Your task to perform on an android device: Search for Mexican restaurants on Maps Image 0: 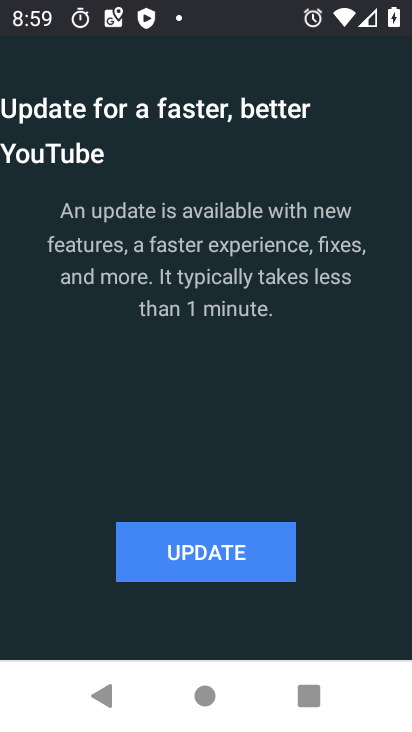
Step 0: press home button
Your task to perform on an android device: Search for Mexican restaurants on Maps Image 1: 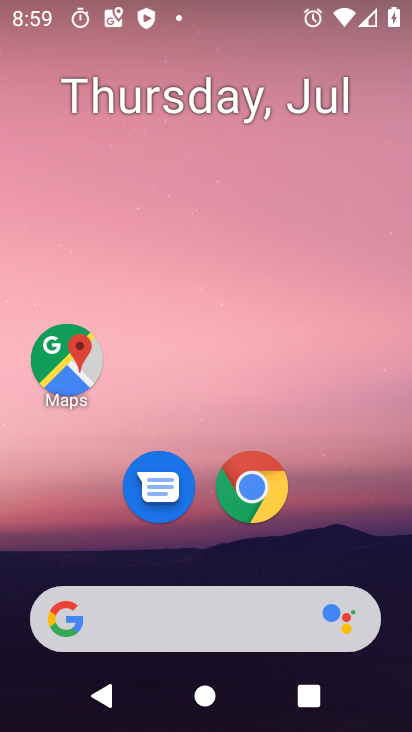
Step 1: drag from (218, 649) to (213, 198)
Your task to perform on an android device: Search for Mexican restaurants on Maps Image 2: 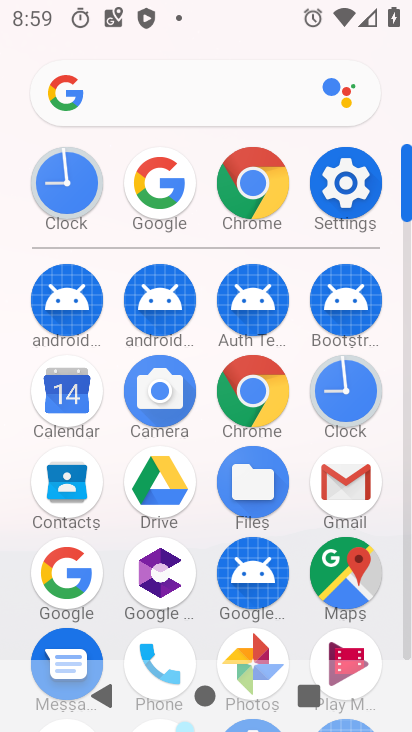
Step 2: click (352, 590)
Your task to perform on an android device: Search for Mexican restaurants on Maps Image 3: 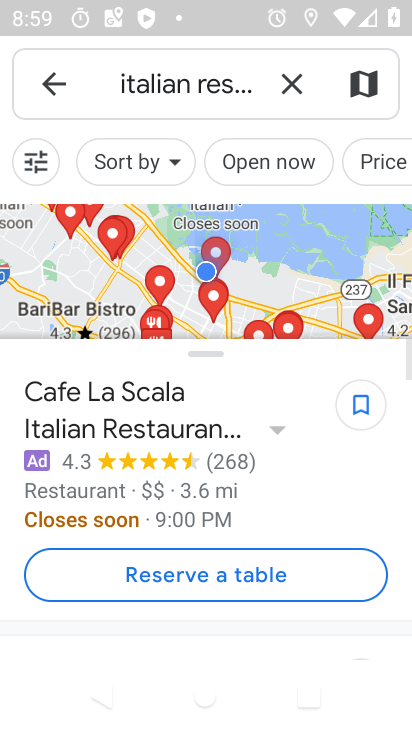
Step 3: click (289, 83)
Your task to perform on an android device: Search for Mexican restaurants on Maps Image 4: 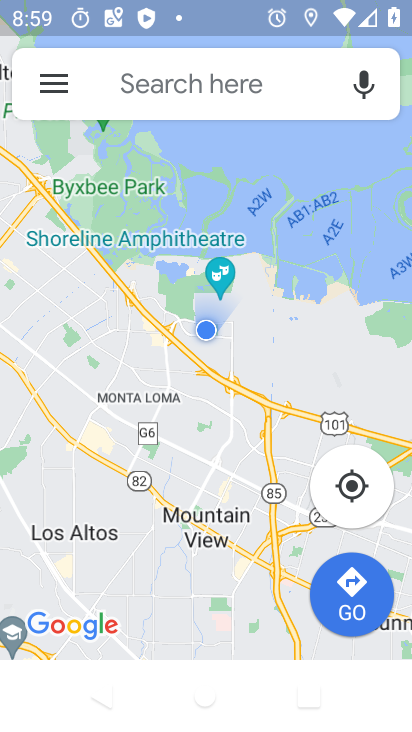
Step 4: click (222, 97)
Your task to perform on an android device: Search for Mexican restaurants on Maps Image 5: 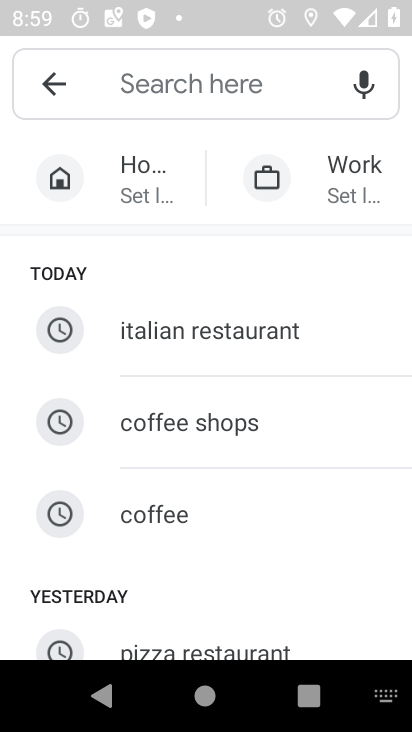
Step 5: drag from (221, 541) to (230, 189)
Your task to perform on an android device: Search for Mexican restaurants on Maps Image 6: 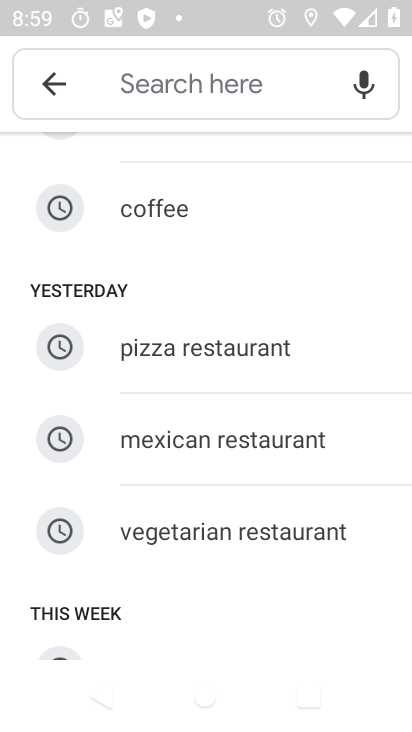
Step 6: click (262, 439)
Your task to perform on an android device: Search for Mexican restaurants on Maps Image 7: 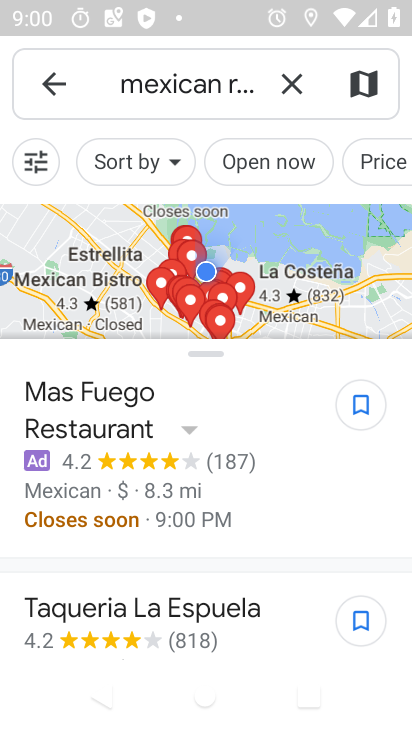
Step 7: task complete